Your task to perform on an android device: Go to display settings Image 0: 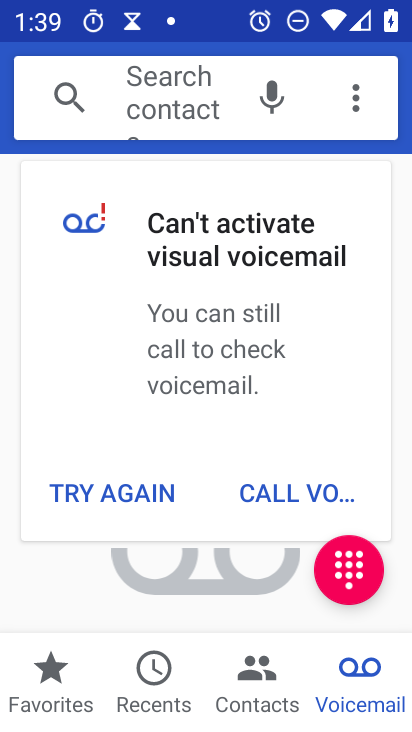
Step 0: press home button
Your task to perform on an android device: Go to display settings Image 1: 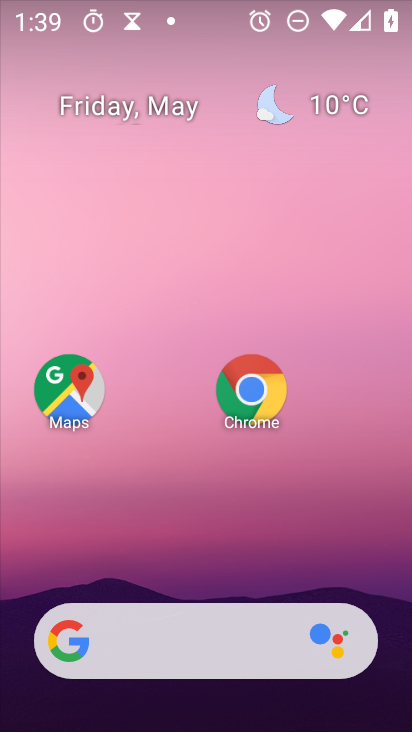
Step 1: drag from (151, 653) to (347, 133)
Your task to perform on an android device: Go to display settings Image 2: 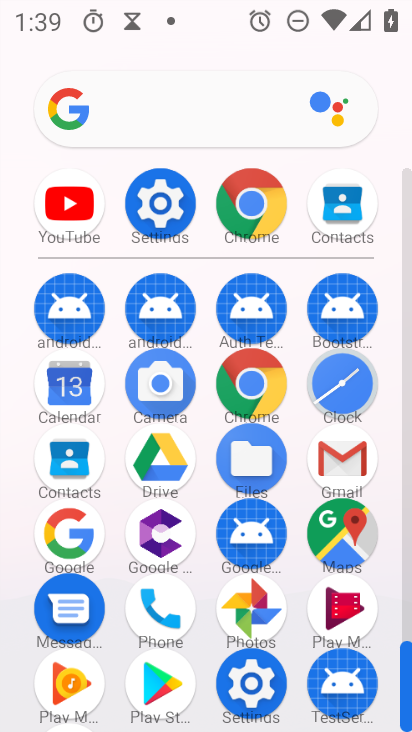
Step 2: click (175, 200)
Your task to perform on an android device: Go to display settings Image 3: 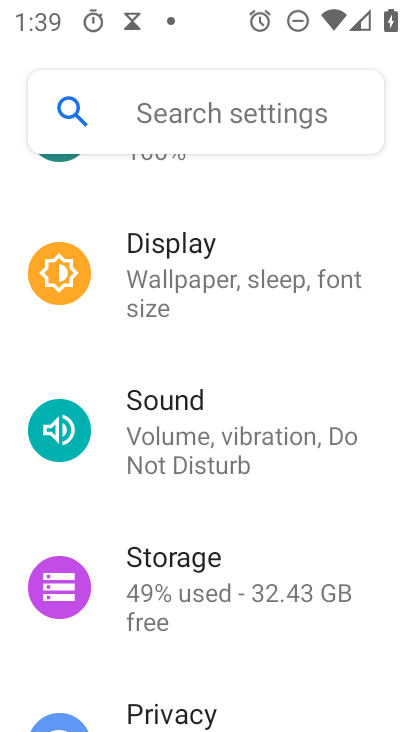
Step 3: click (190, 263)
Your task to perform on an android device: Go to display settings Image 4: 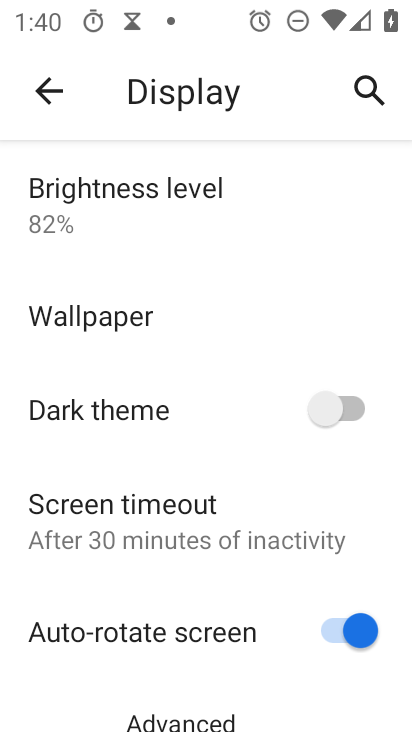
Step 4: task complete